Your task to perform on an android device: check android version Image 0: 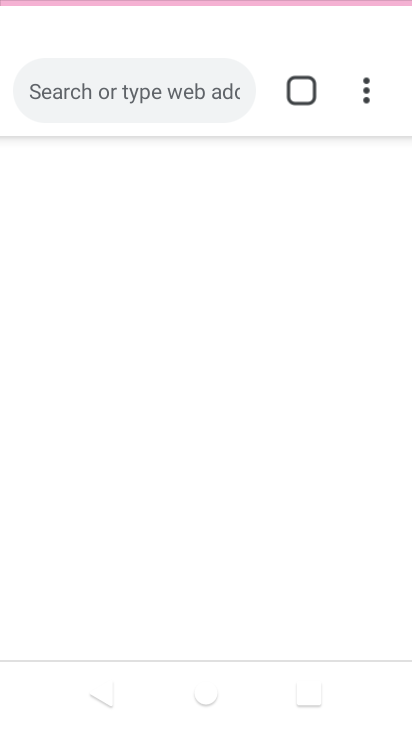
Step 0: click (324, 70)
Your task to perform on an android device: check android version Image 1: 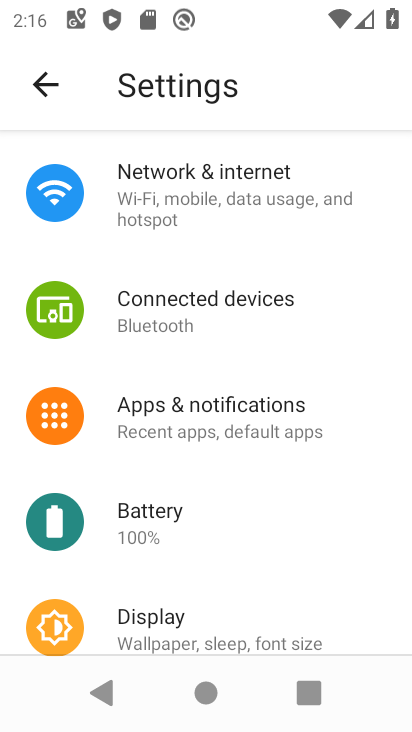
Step 1: drag from (240, 607) to (394, 155)
Your task to perform on an android device: check android version Image 2: 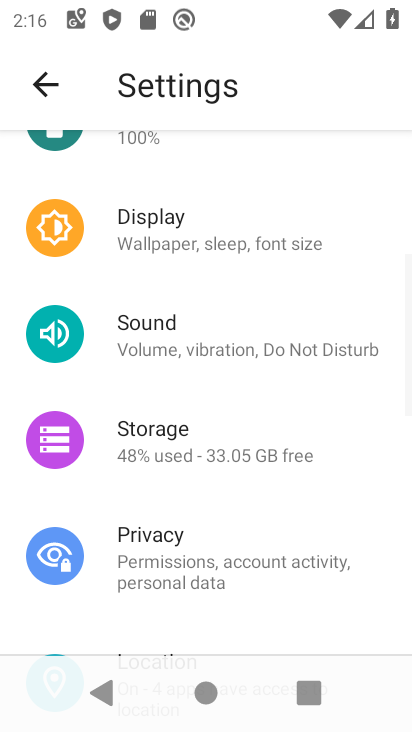
Step 2: drag from (268, 563) to (267, 388)
Your task to perform on an android device: check android version Image 3: 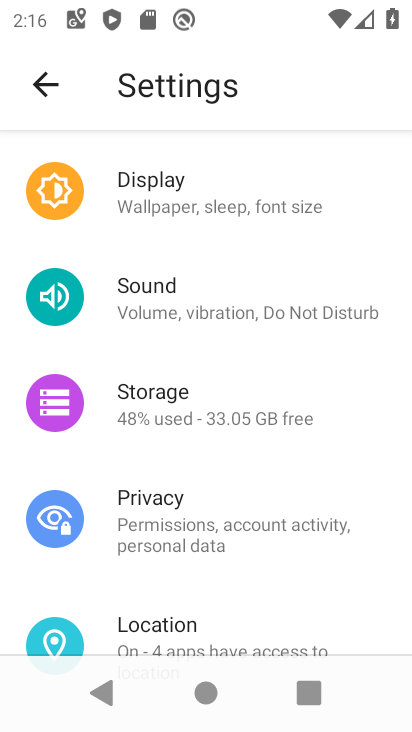
Step 3: drag from (238, 615) to (219, 158)
Your task to perform on an android device: check android version Image 4: 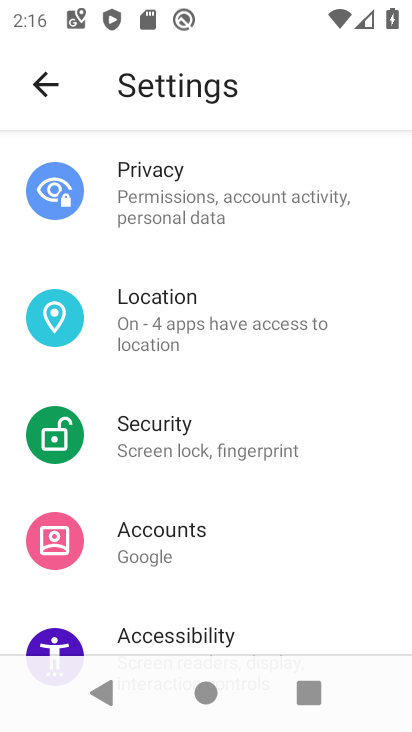
Step 4: drag from (239, 559) to (276, 170)
Your task to perform on an android device: check android version Image 5: 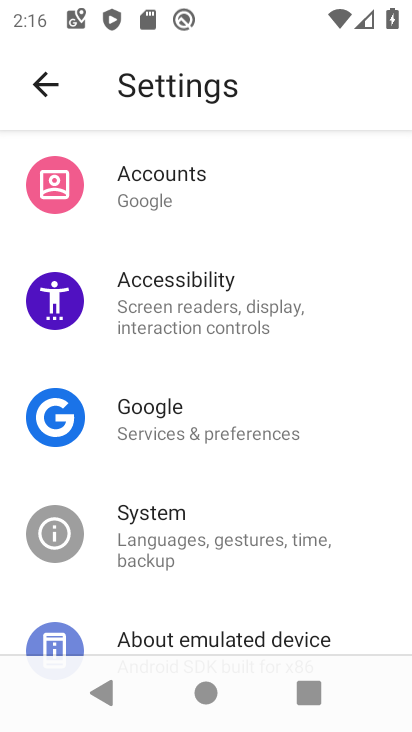
Step 5: drag from (293, 607) to (261, 192)
Your task to perform on an android device: check android version Image 6: 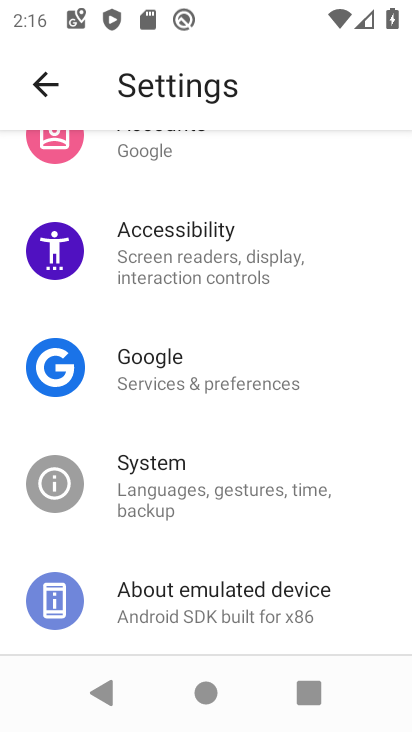
Step 6: click (239, 614)
Your task to perform on an android device: check android version Image 7: 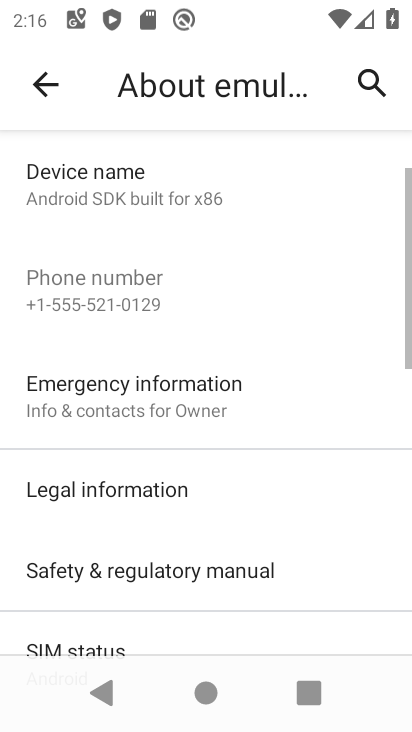
Step 7: drag from (317, 584) to (336, 100)
Your task to perform on an android device: check android version Image 8: 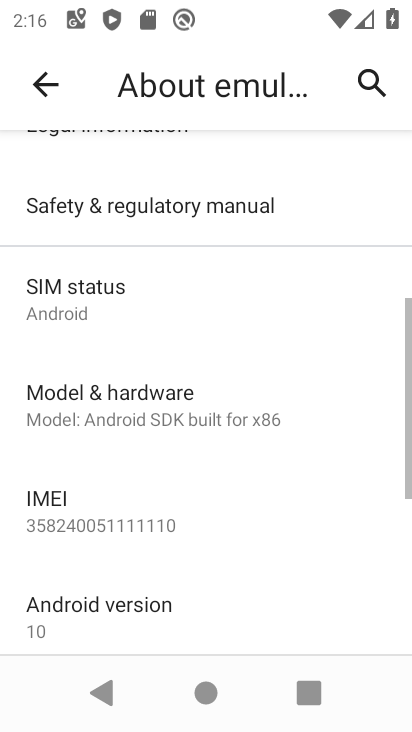
Step 8: click (158, 625)
Your task to perform on an android device: check android version Image 9: 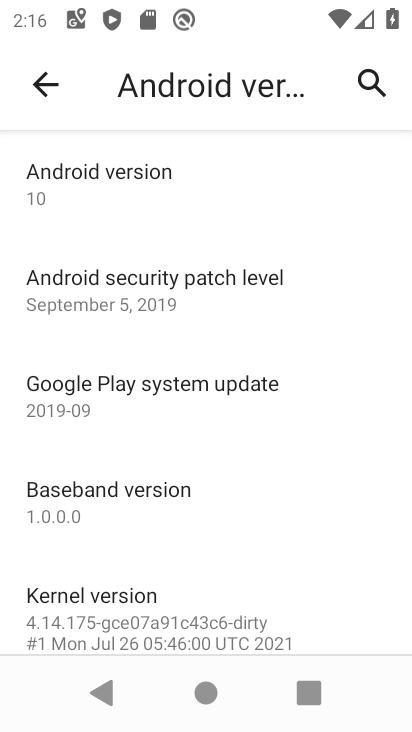
Step 9: task complete